Your task to perform on an android device: When is my next appointment? Image 0: 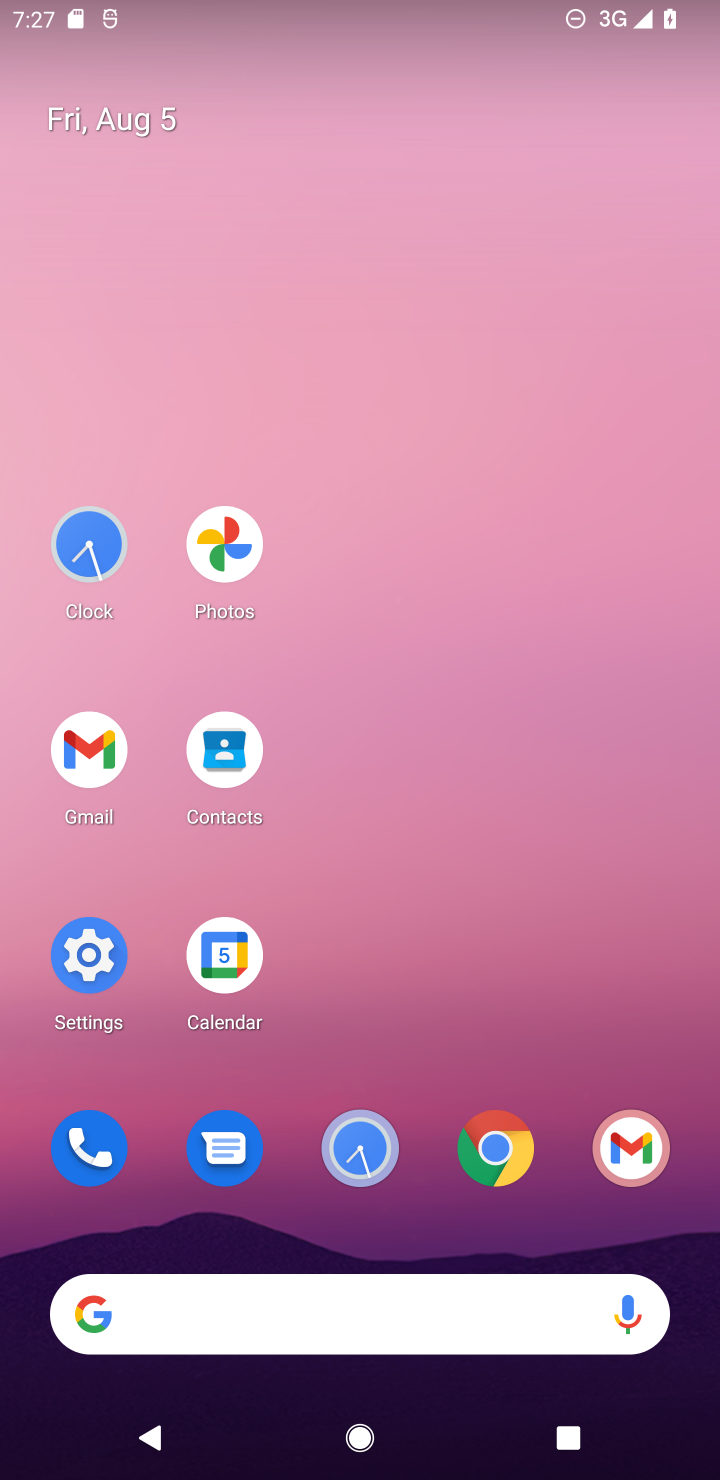
Step 0: click (235, 951)
Your task to perform on an android device: When is my next appointment? Image 1: 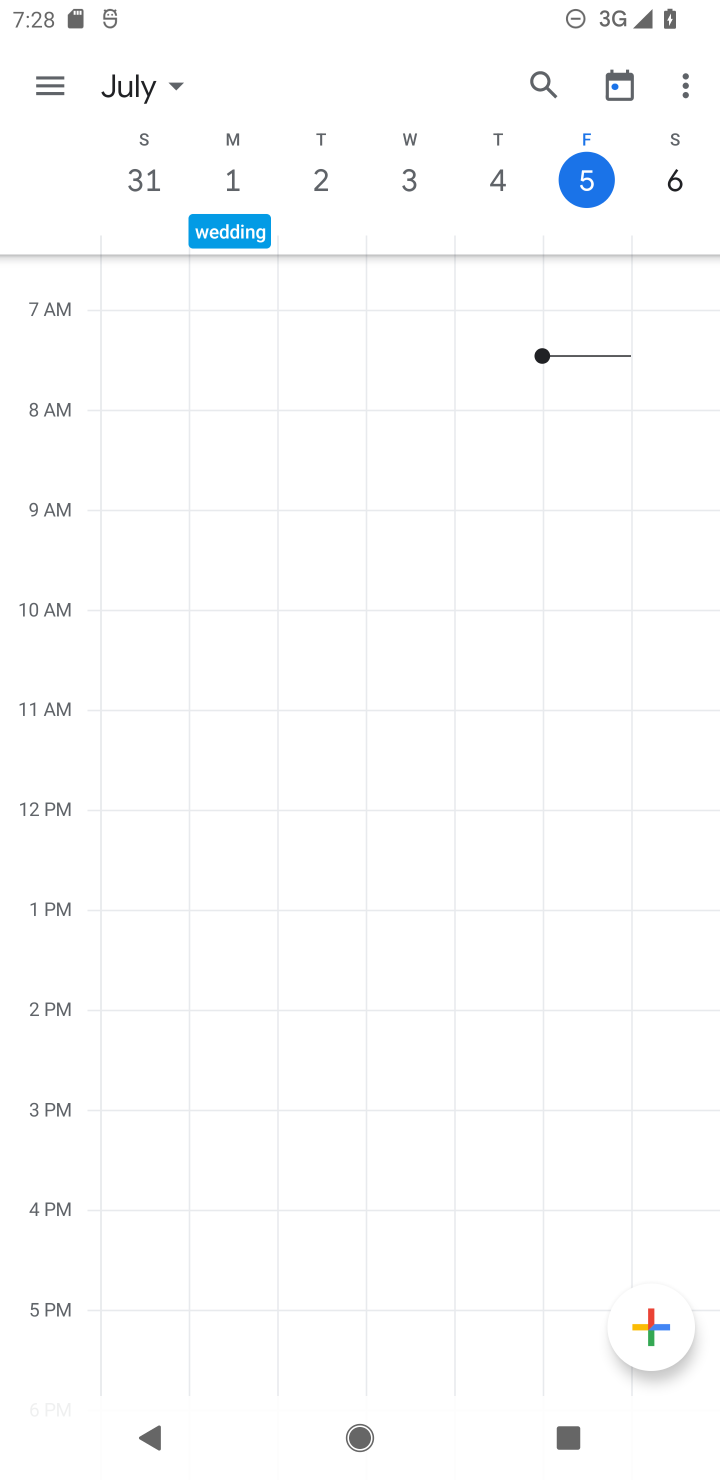
Step 1: click (579, 186)
Your task to perform on an android device: When is my next appointment? Image 2: 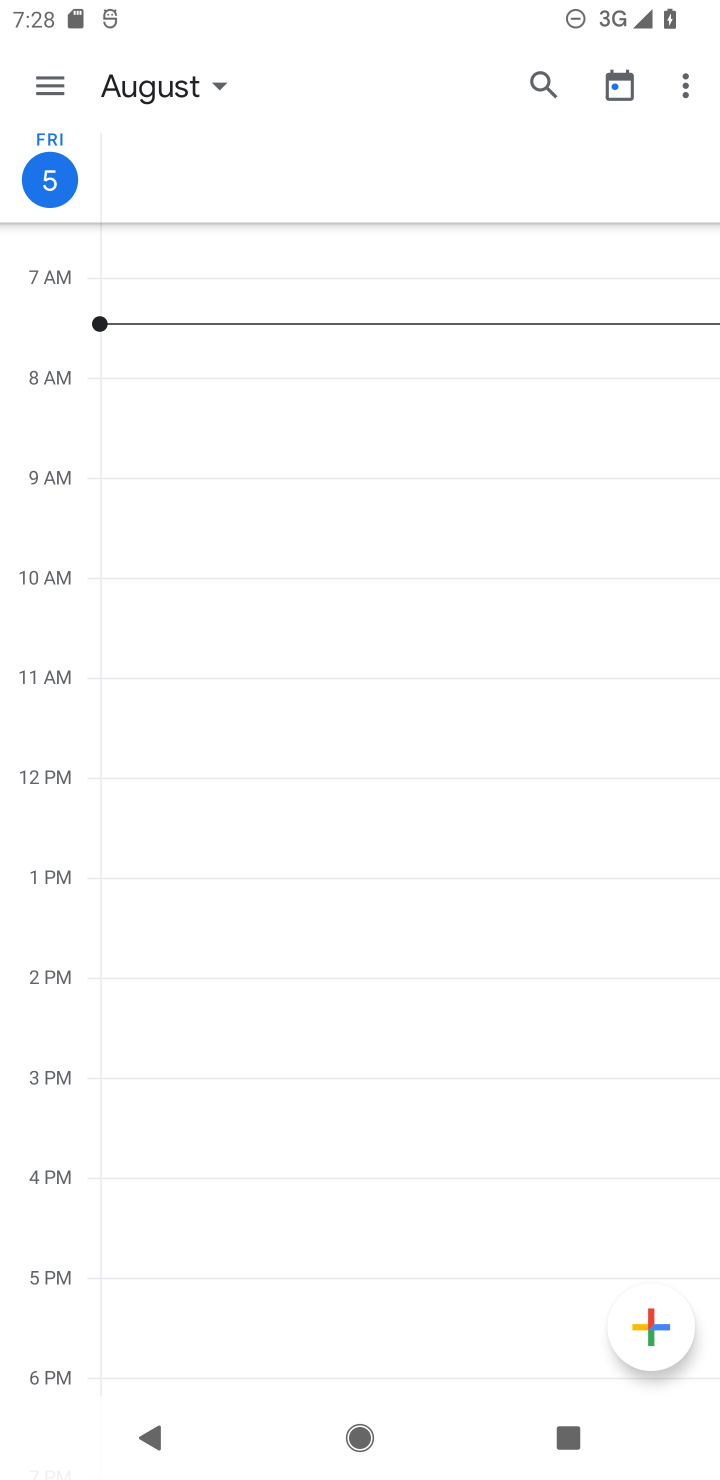
Step 2: click (588, 177)
Your task to perform on an android device: When is my next appointment? Image 3: 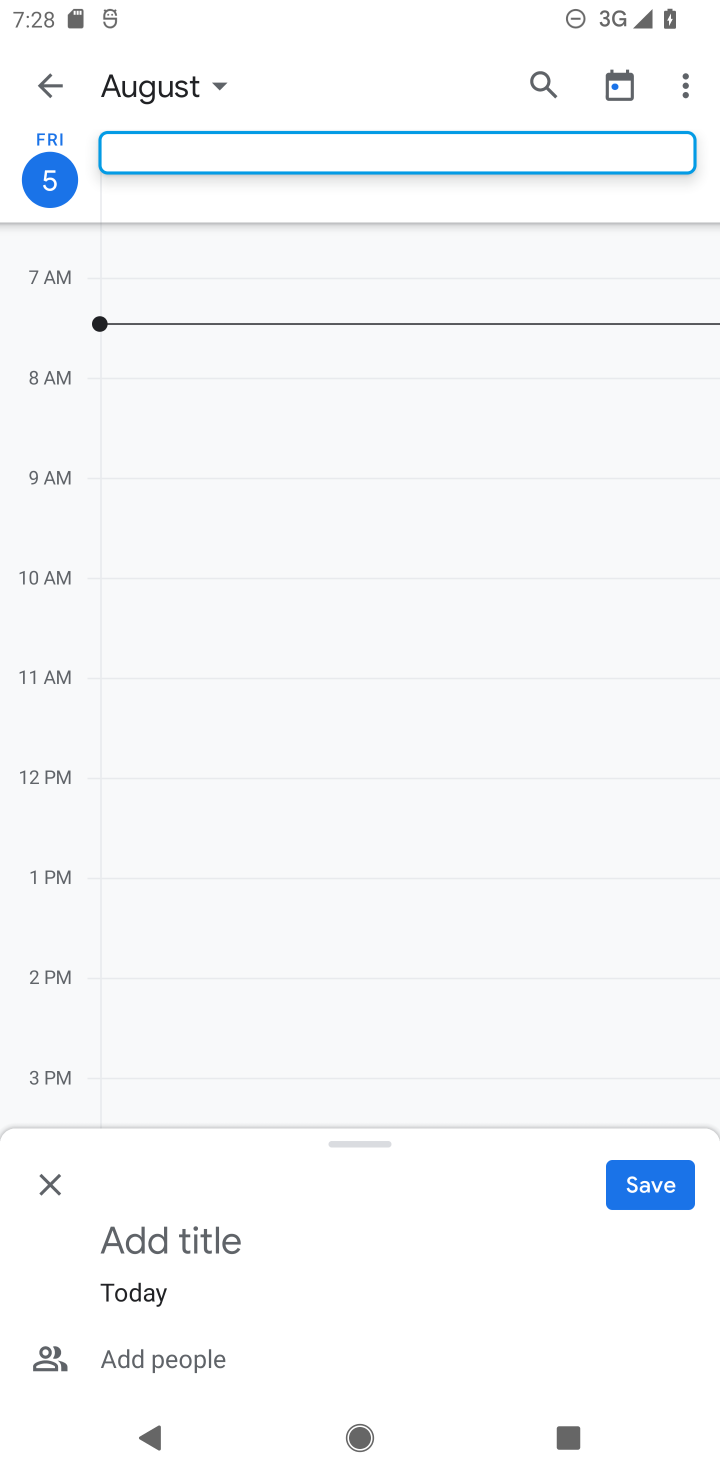
Step 3: task complete